Your task to perform on an android device: delete browsing data in the chrome app Image 0: 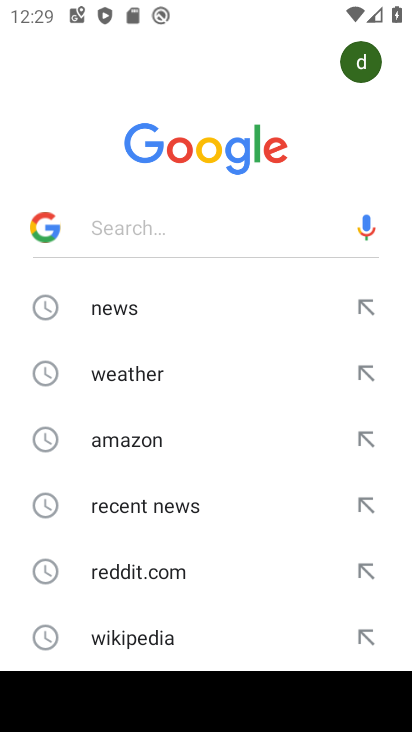
Step 0: press home button
Your task to perform on an android device: delete browsing data in the chrome app Image 1: 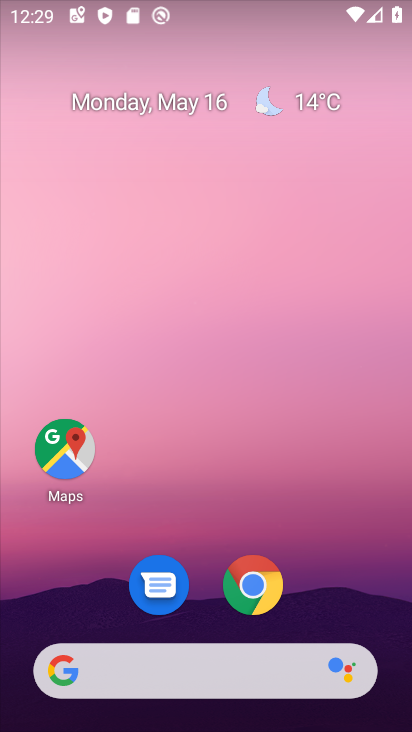
Step 1: click (254, 570)
Your task to perform on an android device: delete browsing data in the chrome app Image 2: 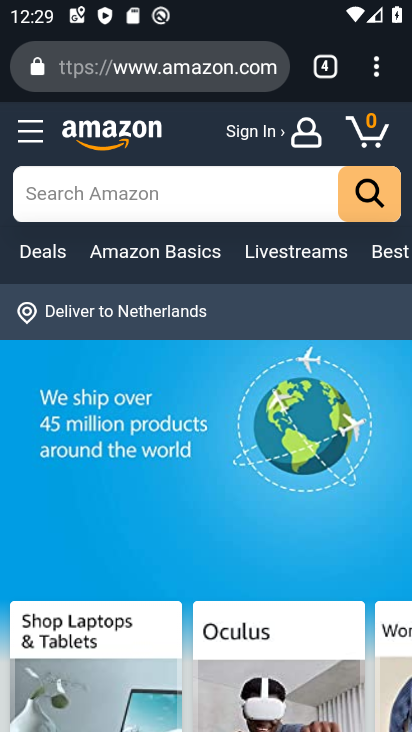
Step 2: click (376, 72)
Your task to perform on an android device: delete browsing data in the chrome app Image 3: 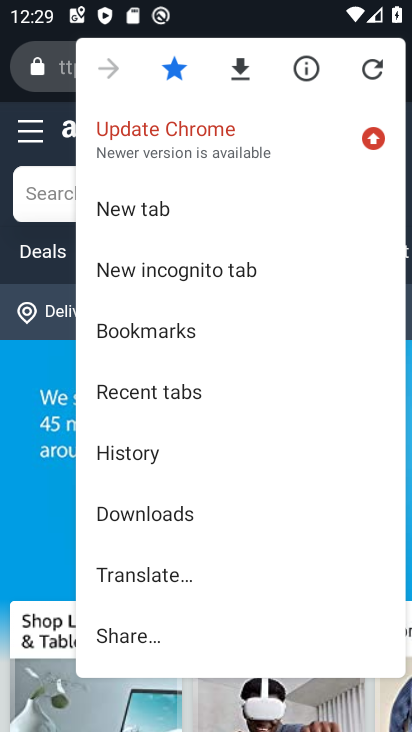
Step 3: click (130, 439)
Your task to perform on an android device: delete browsing data in the chrome app Image 4: 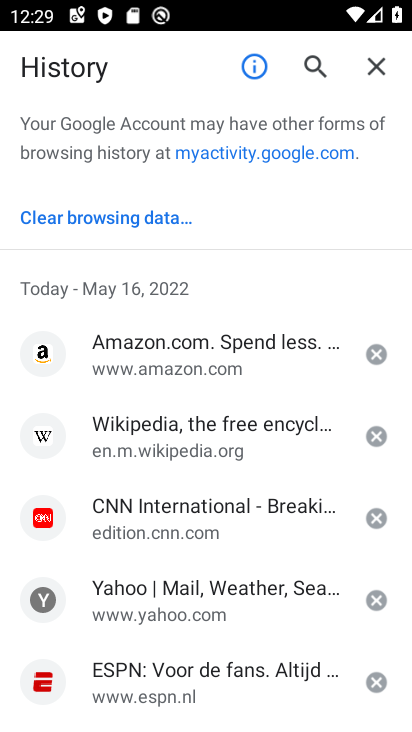
Step 4: click (154, 217)
Your task to perform on an android device: delete browsing data in the chrome app Image 5: 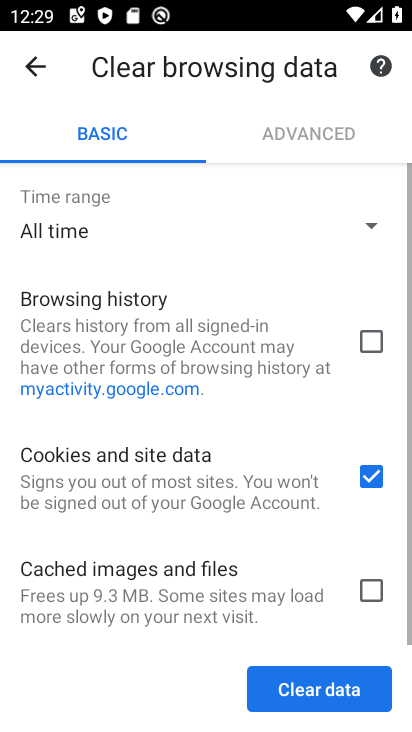
Step 5: click (362, 335)
Your task to perform on an android device: delete browsing data in the chrome app Image 6: 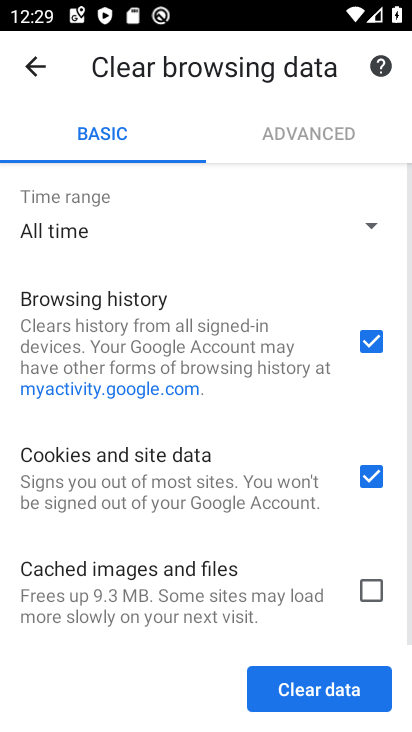
Step 6: click (368, 582)
Your task to perform on an android device: delete browsing data in the chrome app Image 7: 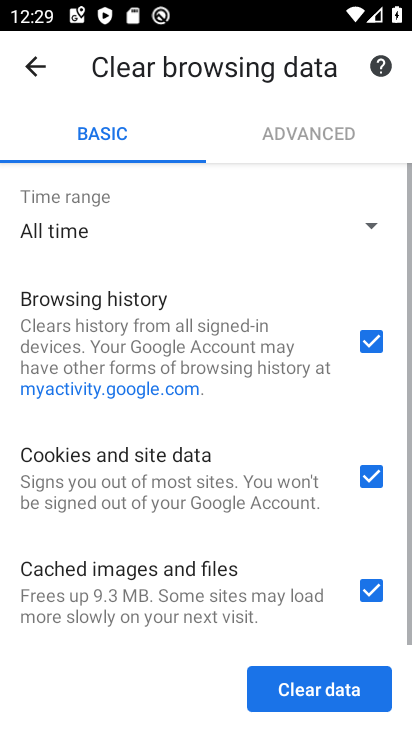
Step 7: click (345, 693)
Your task to perform on an android device: delete browsing data in the chrome app Image 8: 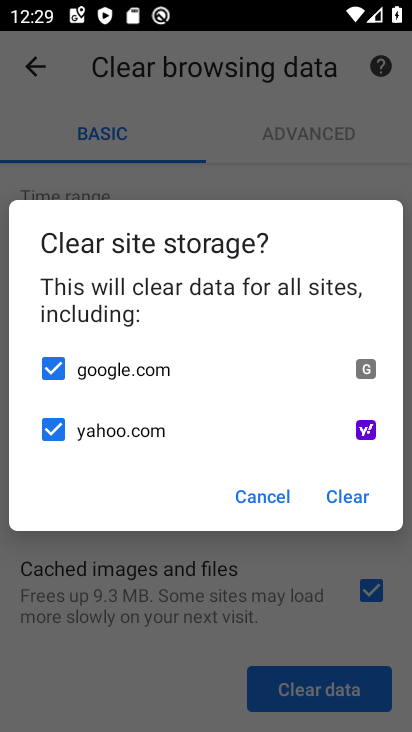
Step 8: click (347, 487)
Your task to perform on an android device: delete browsing data in the chrome app Image 9: 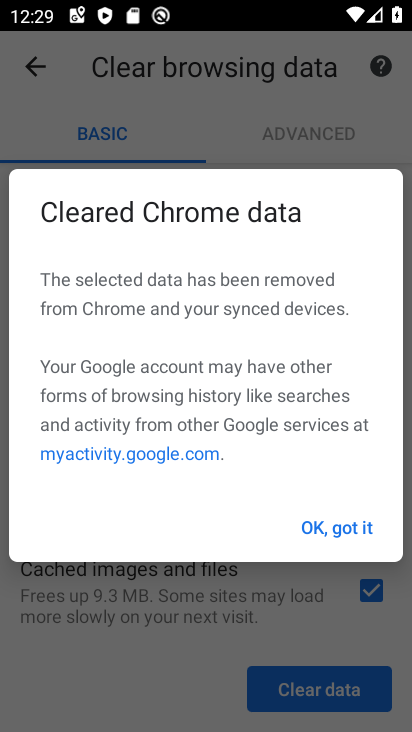
Step 9: click (355, 525)
Your task to perform on an android device: delete browsing data in the chrome app Image 10: 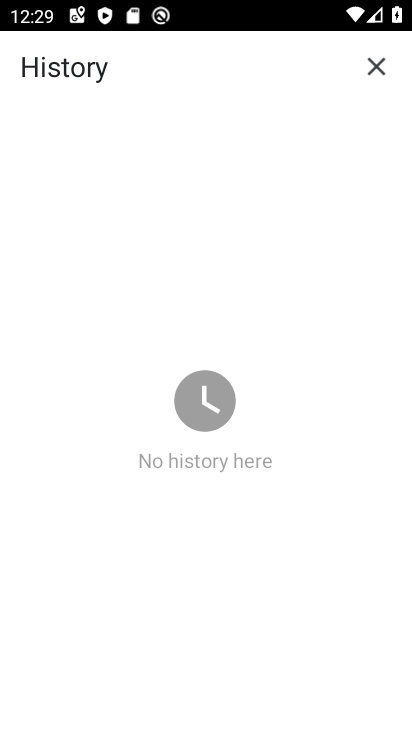
Step 10: task complete